Your task to perform on an android device: turn on data saver in the chrome app Image 0: 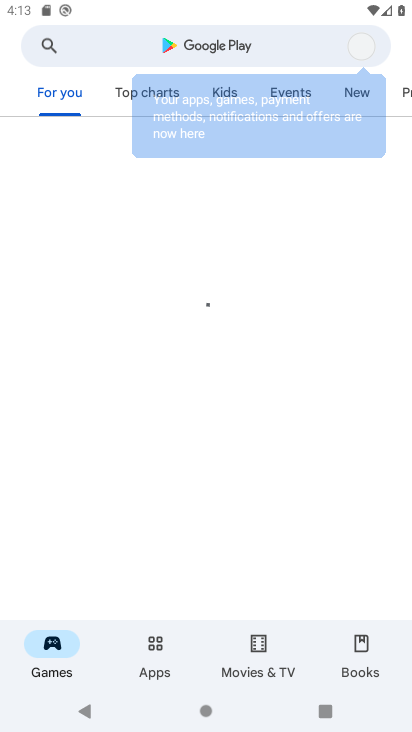
Step 0: press home button
Your task to perform on an android device: turn on data saver in the chrome app Image 1: 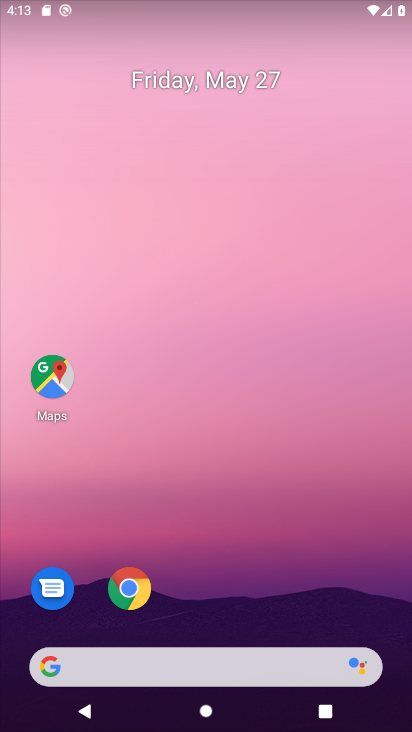
Step 1: click (133, 596)
Your task to perform on an android device: turn on data saver in the chrome app Image 2: 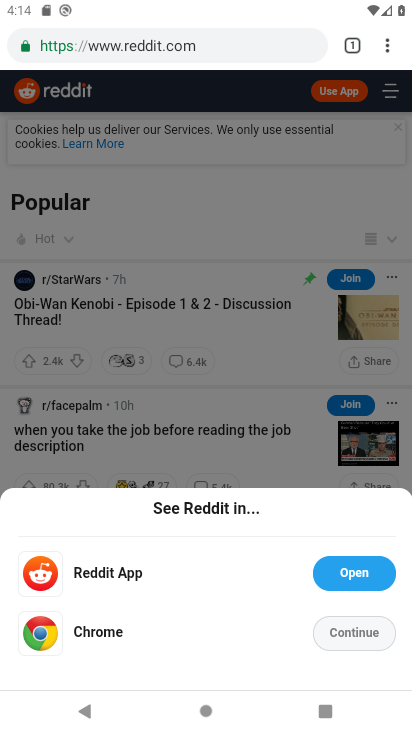
Step 2: click (383, 40)
Your task to perform on an android device: turn on data saver in the chrome app Image 3: 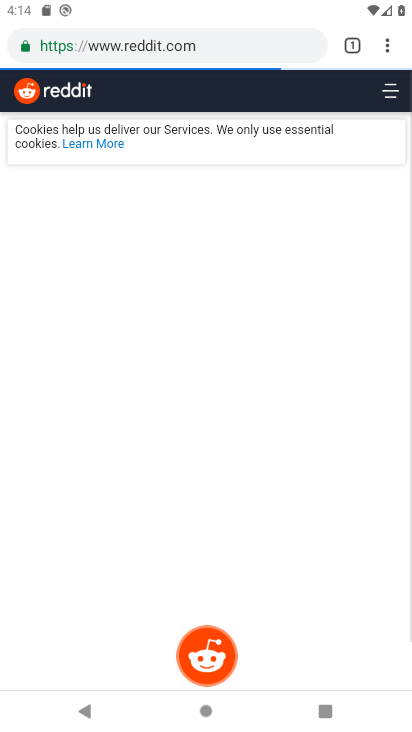
Step 3: click (392, 49)
Your task to perform on an android device: turn on data saver in the chrome app Image 4: 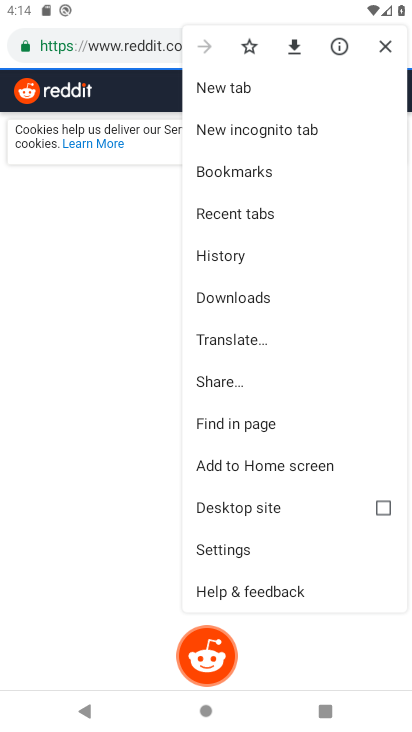
Step 4: click (235, 552)
Your task to perform on an android device: turn on data saver in the chrome app Image 5: 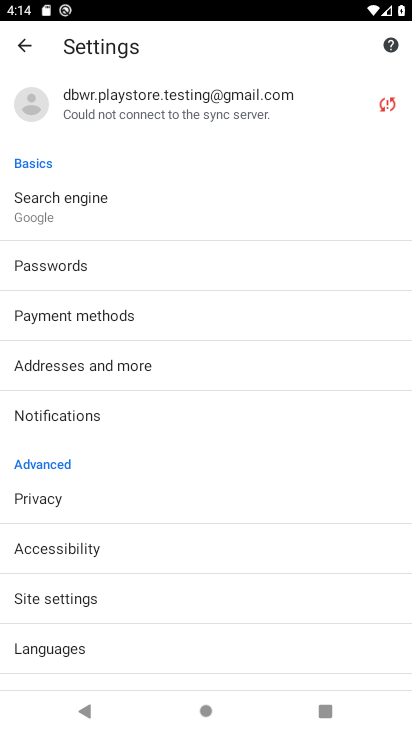
Step 5: drag from (166, 639) to (183, 293)
Your task to perform on an android device: turn on data saver in the chrome app Image 6: 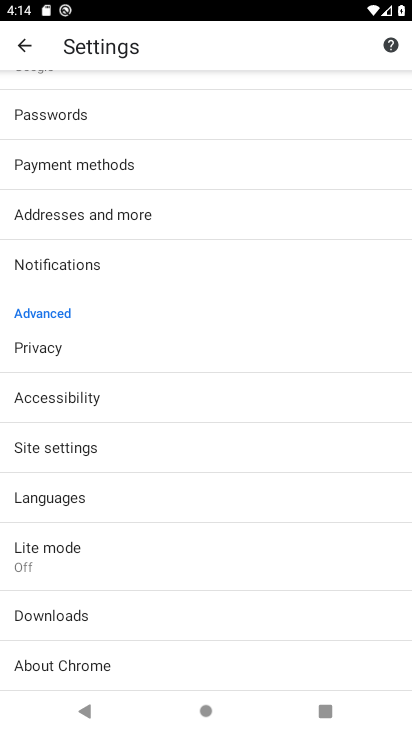
Step 6: click (91, 548)
Your task to perform on an android device: turn on data saver in the chrome app Image 7: 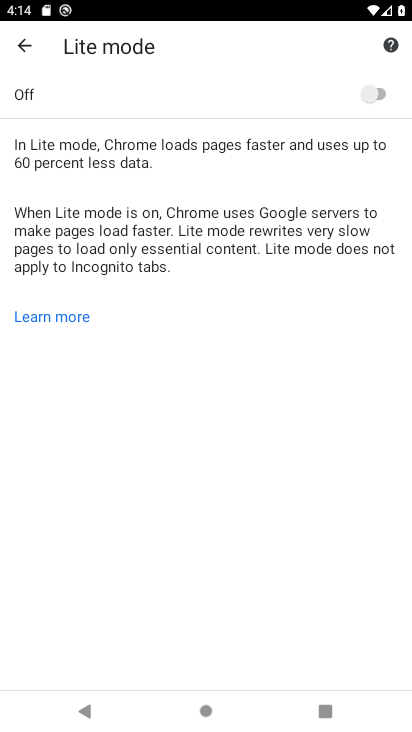
Step 7: click (378, 94)
Your task to perform on an android device: turn on data saver in the chrome app Image 8: 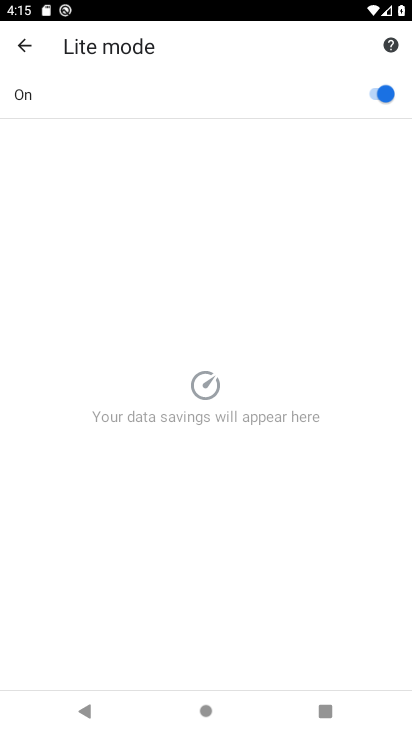
Step 8: task complete